Your task to perform on an android device: toggle data saver in the chrome app Image 0: 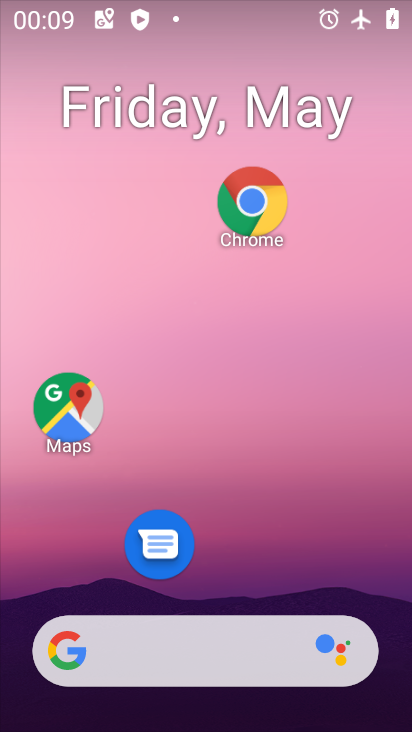
Step 0: click (251, 196)
Your task to perform on an android device: toggle data saver in the chrome app Image 1: 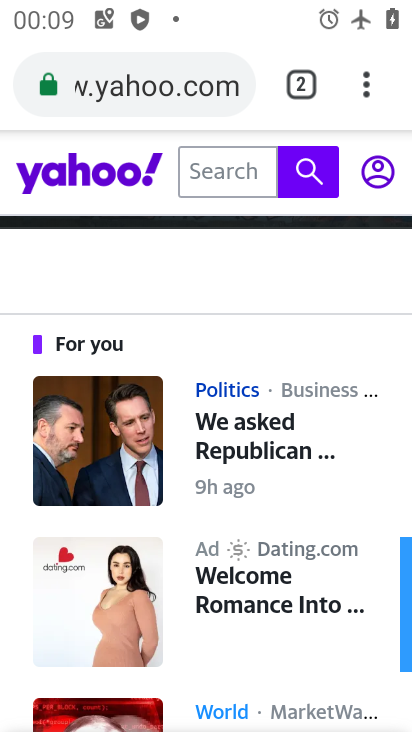
Step 1: click (368, 79)
Your task to perform on an android device: toggle data saver in the chrome app Image 2: 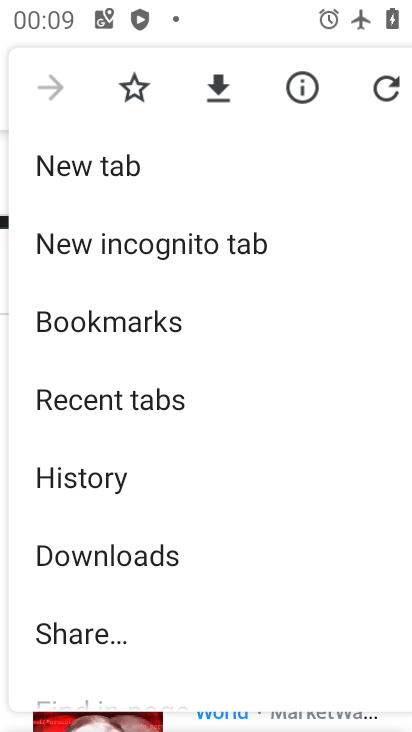
Step 2: drag from (188, 634) to (212, 148)
Your task to perform on an android device: toggle data saver in the chrome app Image 3: 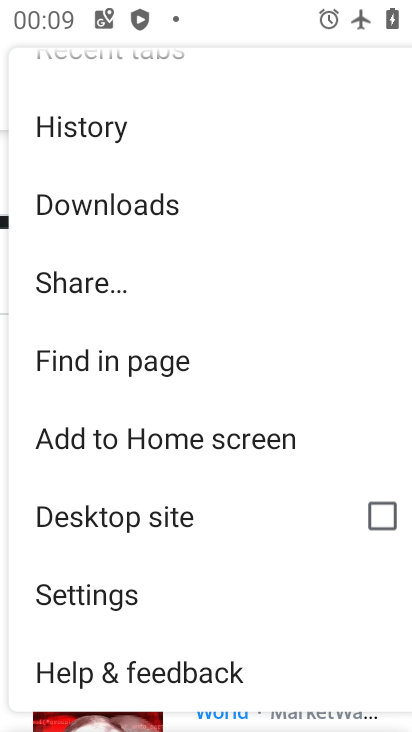
Step 3: click (149, 591)
Your task to perform on an android device: toggle data saver in the chrome app Image 4: 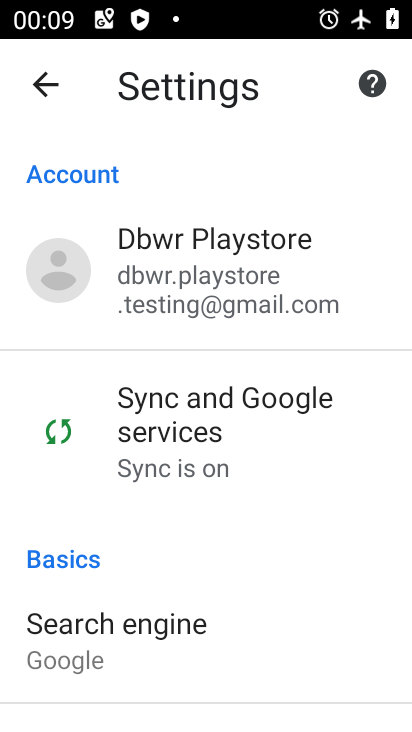
Step 4: drag from (168, 672) to (169, 171)
Your task to perform on an android device: toggle data saver in the chrome app Image 5: 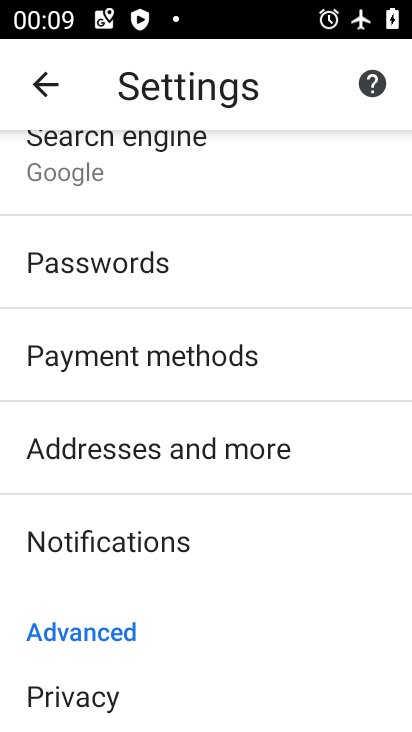
Step 5: drag from (184, 657) to (225, 114)
Your task to perform on an android device: toggle data saver in the chrome app Image 6: 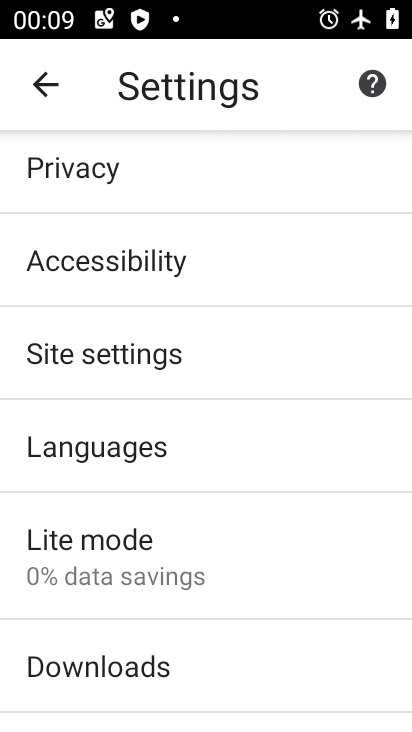
Step 6: click (195, 549)
Your task to perform on an android device: toggle data saver in the chrome app Image 7: 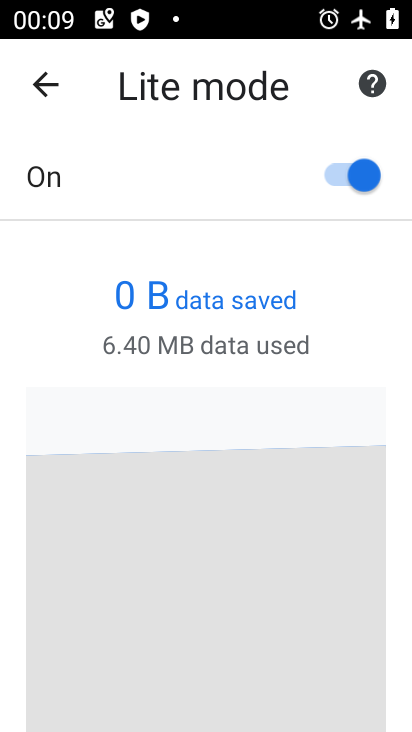
Step 7: click (342, 171)
Your task to perform on an android device: toggle data saver in the chrome app Image 8: 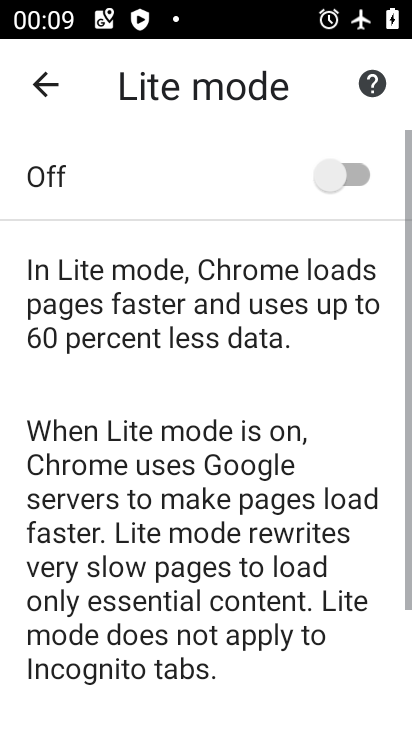
Step 8: task complete